Your task to perform on an android device: Open network settings Image 0: 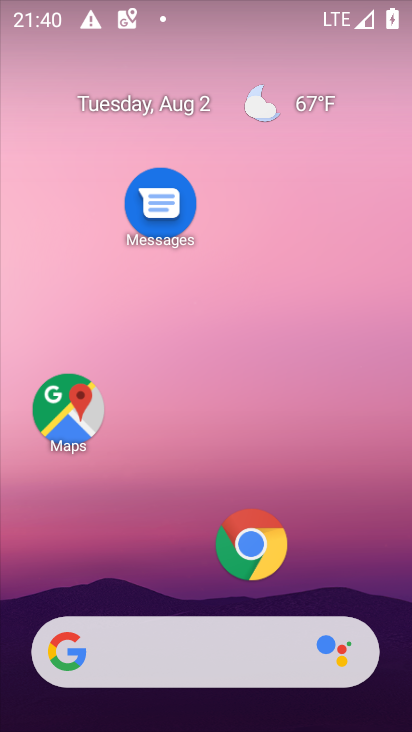
Step 0: drag from (184, 518) to (193, 219)
Your task to perform on an android device: Open network settings Image 1: 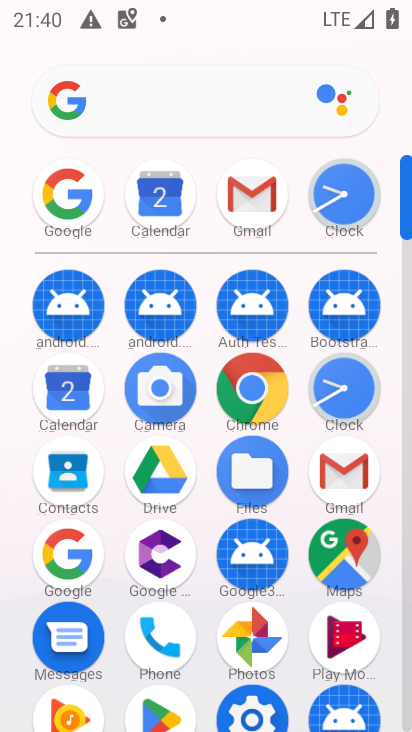
Step 1: drag from (223, 522) to (236, 268)
Your task to perform on an android device: Open network settings Image 2: 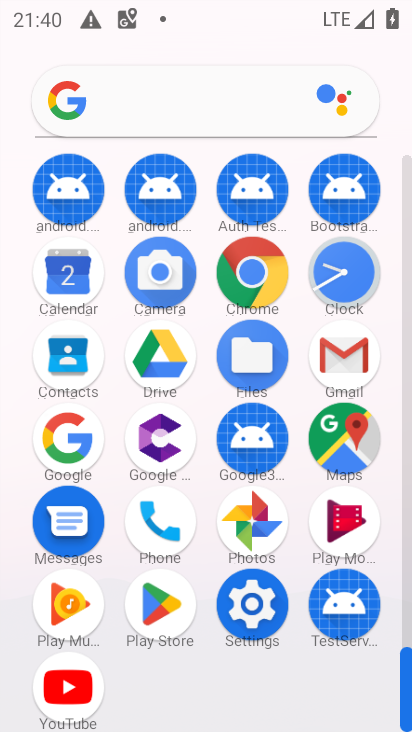
Step 2: click (246, 625)
Your task to perform on an android device: Open network settings Image 3: 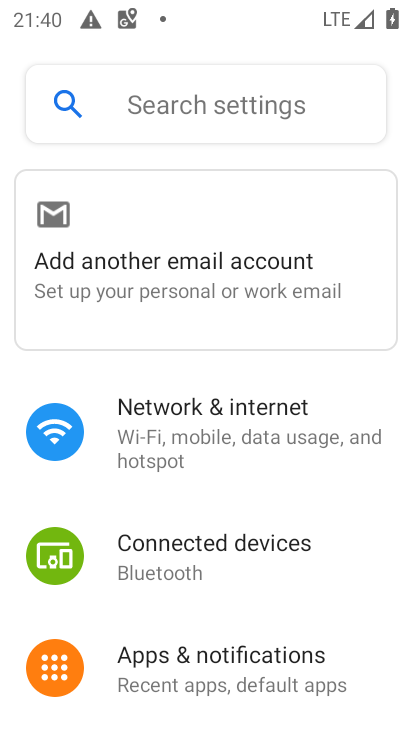
Step 3: click (180, 441)
Your task to perform on an android device: Open network settings Image 4: 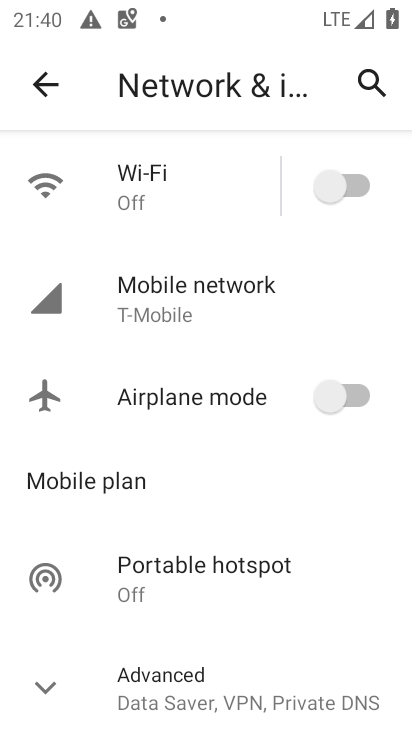
Step 4: task complete